Your task to perform on an android device: Open Youtube and go to the subscriptions tab Image 0: 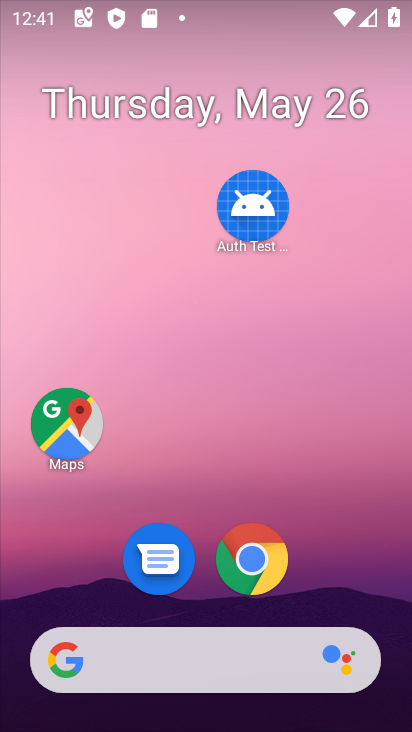
Step 0: drag from (335, 591) to (305, 97)
Your task to perform on an android device: Open Youtube and go to the subscriptions tab Image 1: 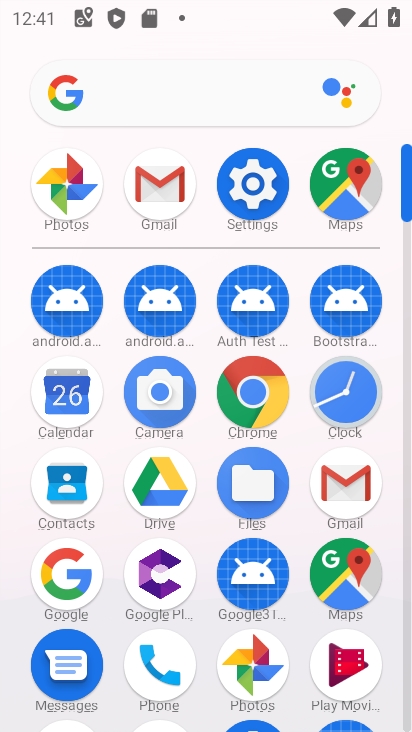
Step 1: drag from (204, 266) to (219, 18)
Your task to perform on an android device: Open Youtube and go to the subscriptions tab Image 2: 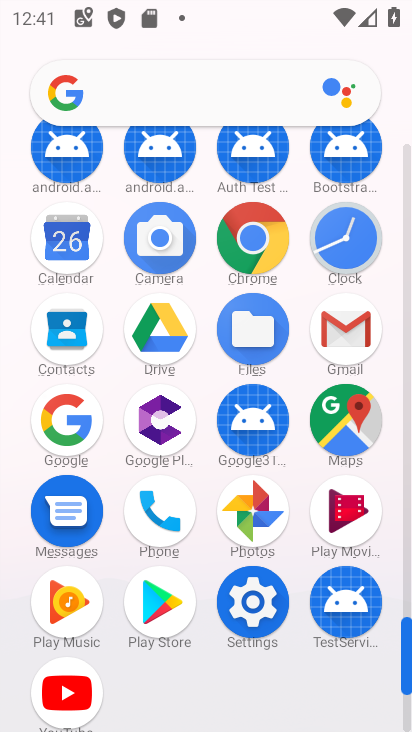
Step 2: click (79, 683)
Your task to perform on an android device: Open Youtube and go to the subscriptions tab Image 3: 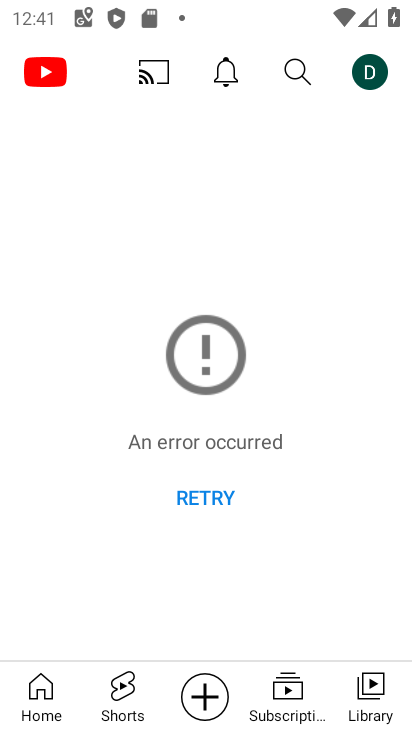
Step 3: click (278, 694)
Your task to perform on an android device: Open Youtube and go to the subscriptions tab Image 4: 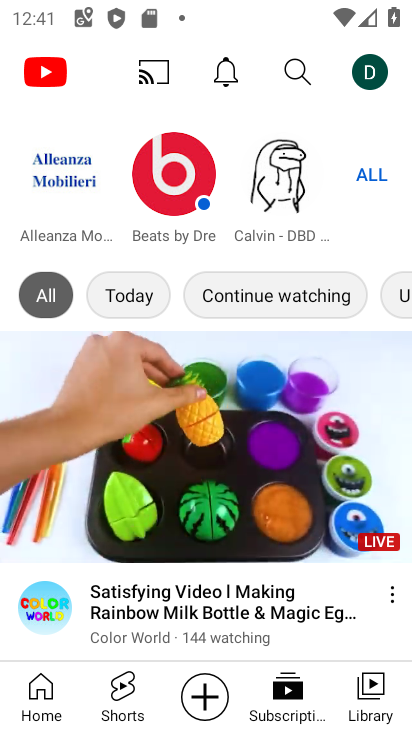
Step 4: task complete